Your task to perform on an android device: turn on data saver in the chrome app Image 0: 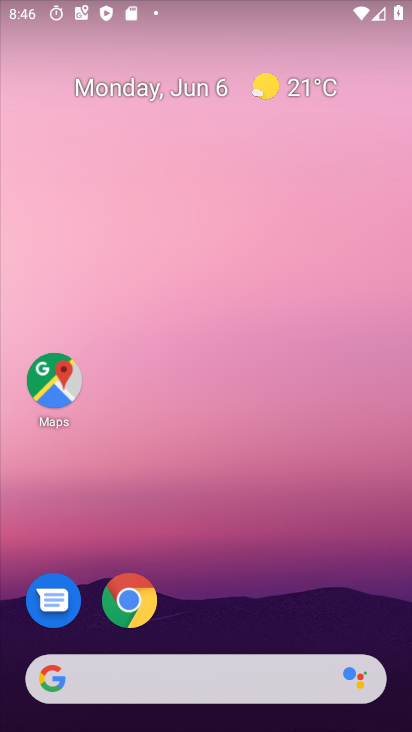
Step 0: drag from (262, 563) to (226, 29)
Your task to perform on an android device: turn on data saver in the chrome app Image 1: 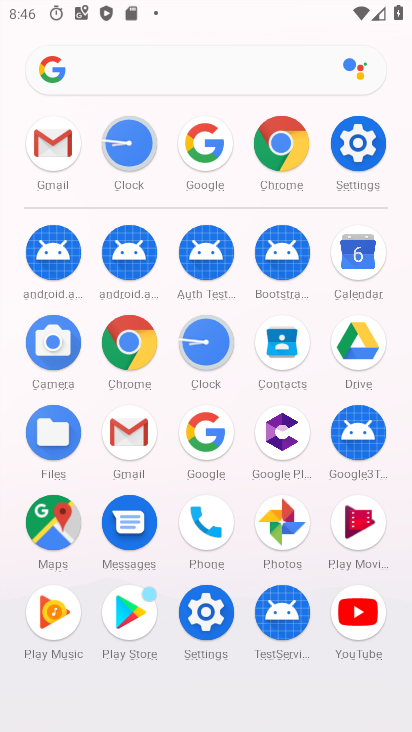
Step 1: click (128, 340)
Your task to perform on an android device: turn on data saver in the chrome app Image 2: 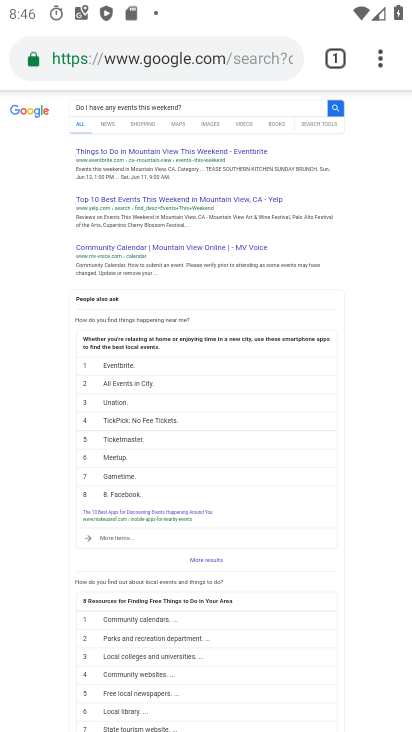
Step 2: drag from (377, 58) to (232, 625)
Your task to perform on an android device: turn on data saver in the chrome app Image 3: 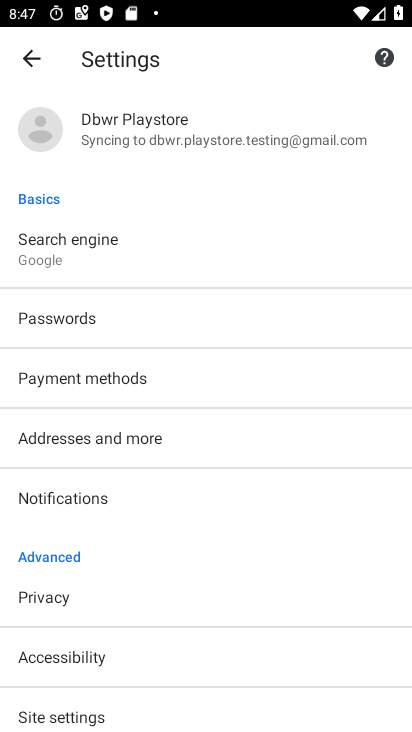
Step 3: drag from (210, 578) to (262, 179)
Your task to perform on an android device: turn on data saver in the chrome app Image 4: 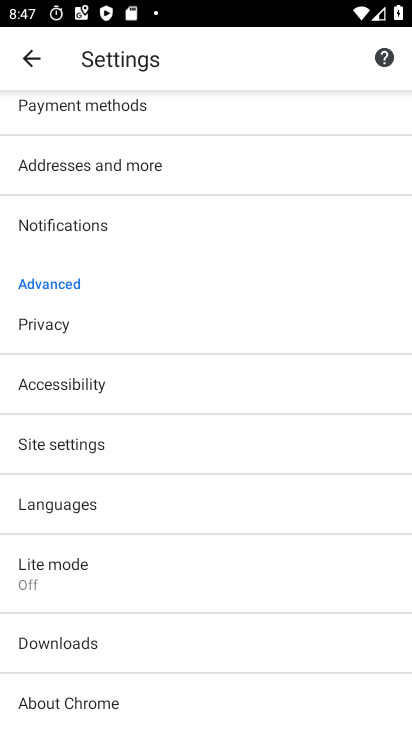
Step 4: drag from (198, 570) to (223, 308)
Your task to perform on an android device: turn on data saver in the chrome app Image 5: 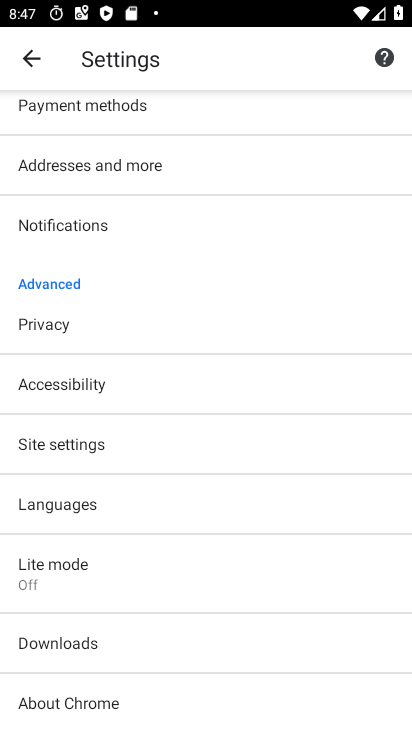
Step 5: click (136, 564)
Your task to perform on an android device: turn on data saver in the chrome app Image 6: 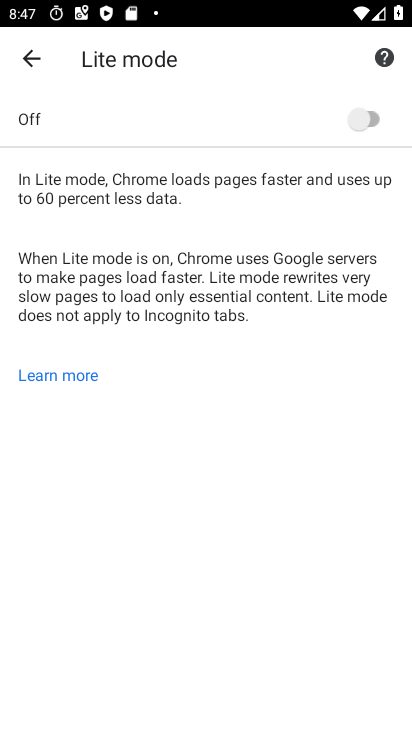
Step 6: click (358, 100)
Your task to perform on an android device: turn on data saver in the chrome app Image 7: 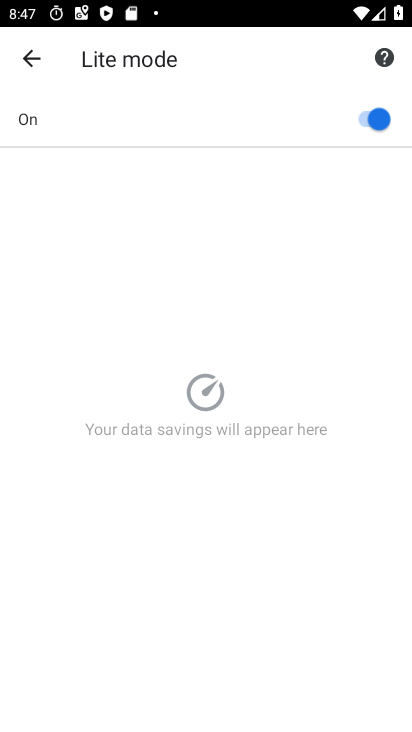
Step 7: task complete